Your task to perform on an android device: clear history in the chrome app Image 0: 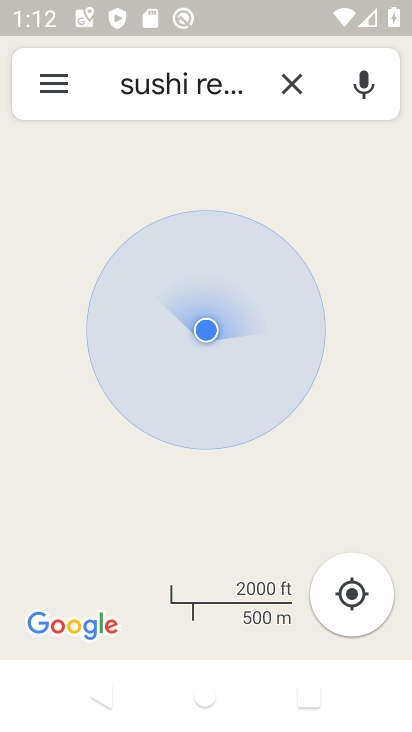
Step 0: press home button
Your task to perform on an android device: clear history in the chrome app Image 1: 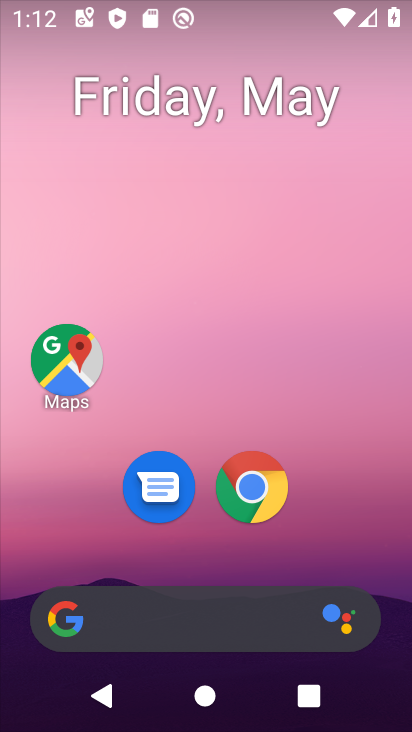
Step 1: click (262, 480)
Your task to perform on an android device: clear history in the chrome app Image 2: 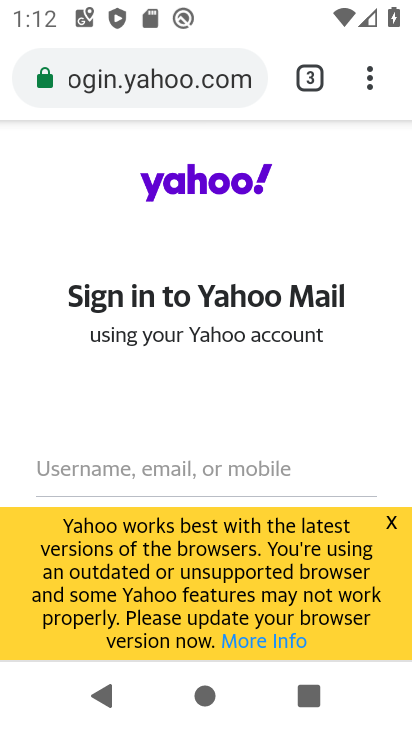
Step 2: click (370, 78)
Your task to perform on an android device: clear history in the chrome app Image 3: 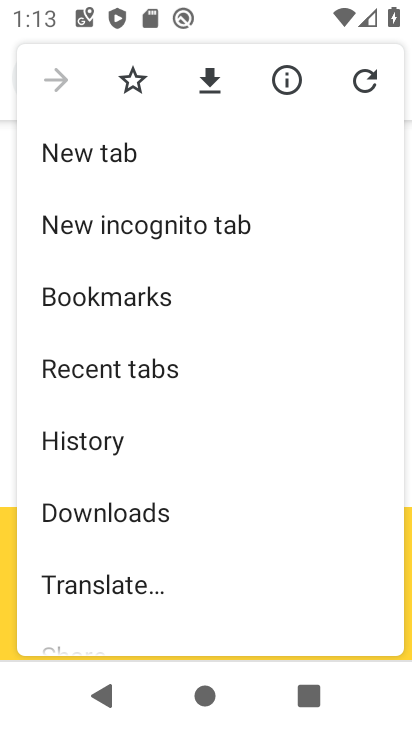
Step 3: click (87, 448)
Your task to perform on an android device: clear history in the chrome app Image 4: 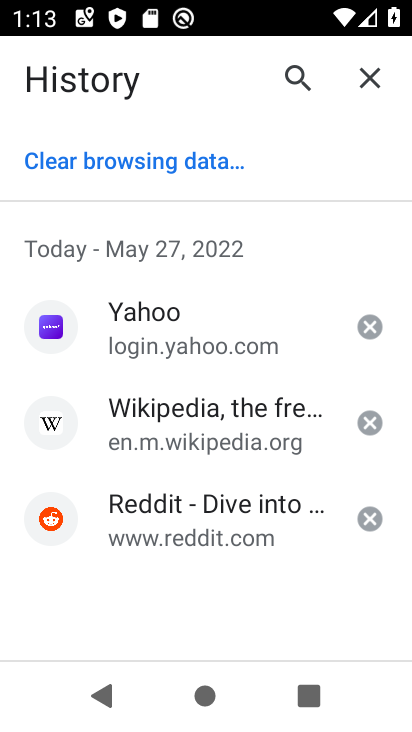
Step 4: drag from (197, 166) to (163, 171)
Your task to perform on an android device: clear history in the chrome app Image 5: 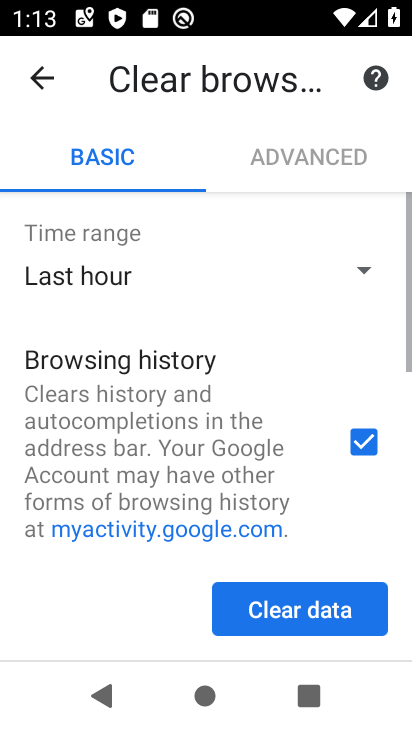
Step 5: click (308, 637)
Your task to perform on an android device: clear history in the chrome app Image 6: 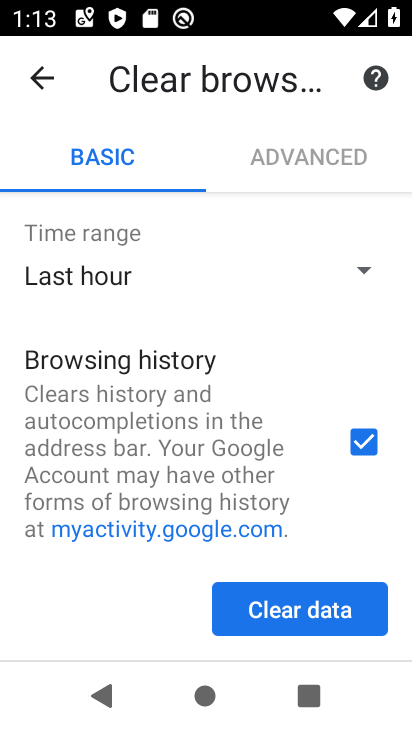
Step 6: click (302, 617)
Your task to perform on an android device: clear history in the chrome app Image 7: 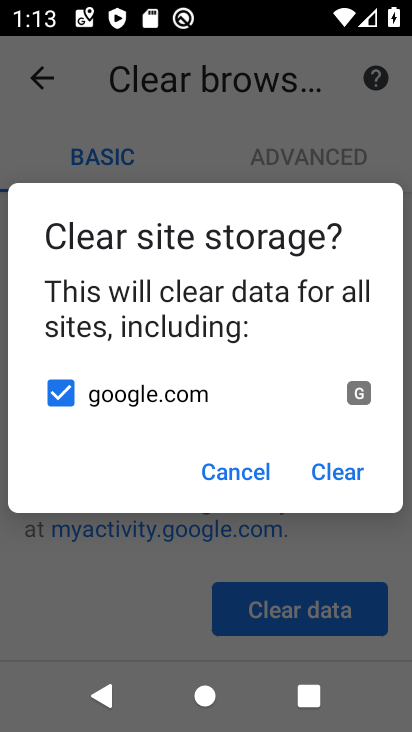
Step 7: click (322, 482)
Your task to perform on an android device: clear history in the chrome app Image 8: 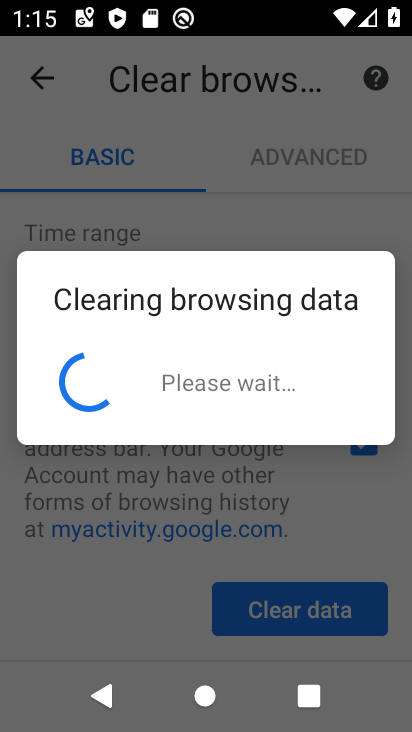
Step 8: task complete